Your task to perform on an android device: Turn off the flashlight Image 0: 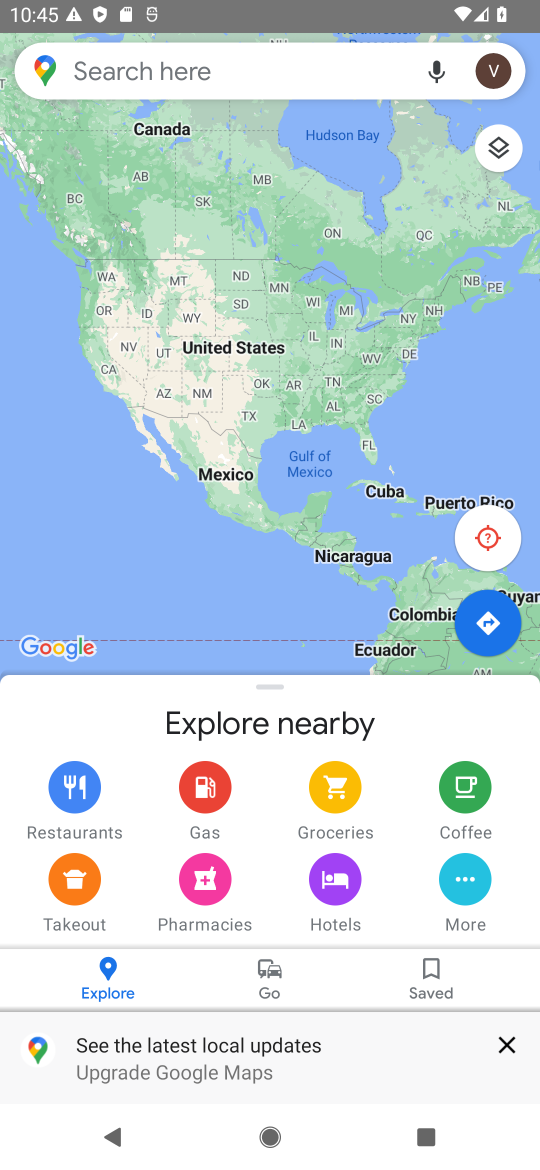
Step 0: press home button
Your task to perform on an android device: Turn off the flashlight Image 1: 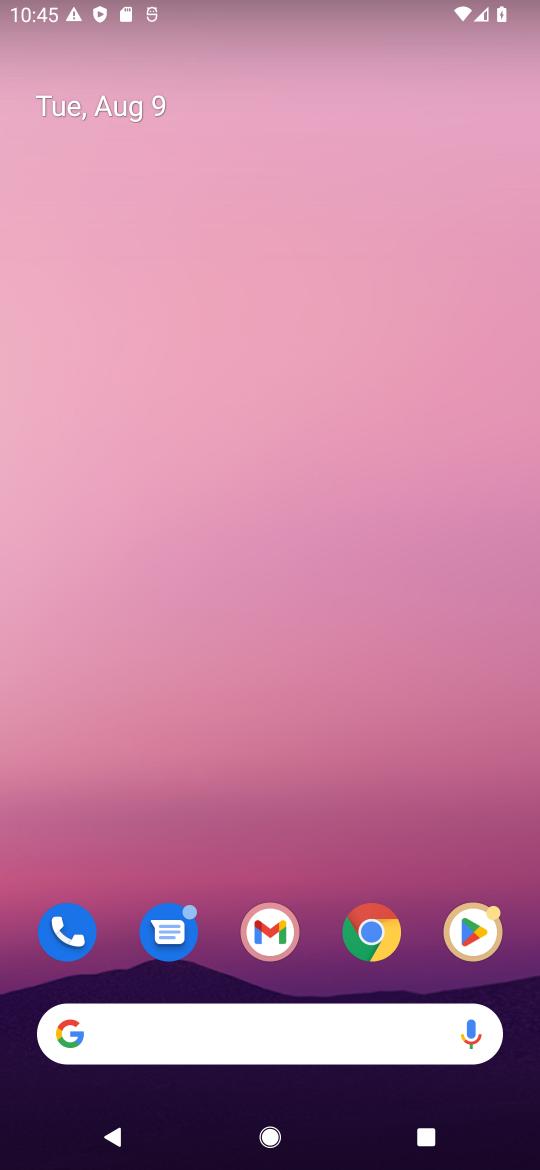
Step 1: drag from (282, 811) to (298, 191)
Your task to perform on an android device: Turn off the flashlight Image 2: 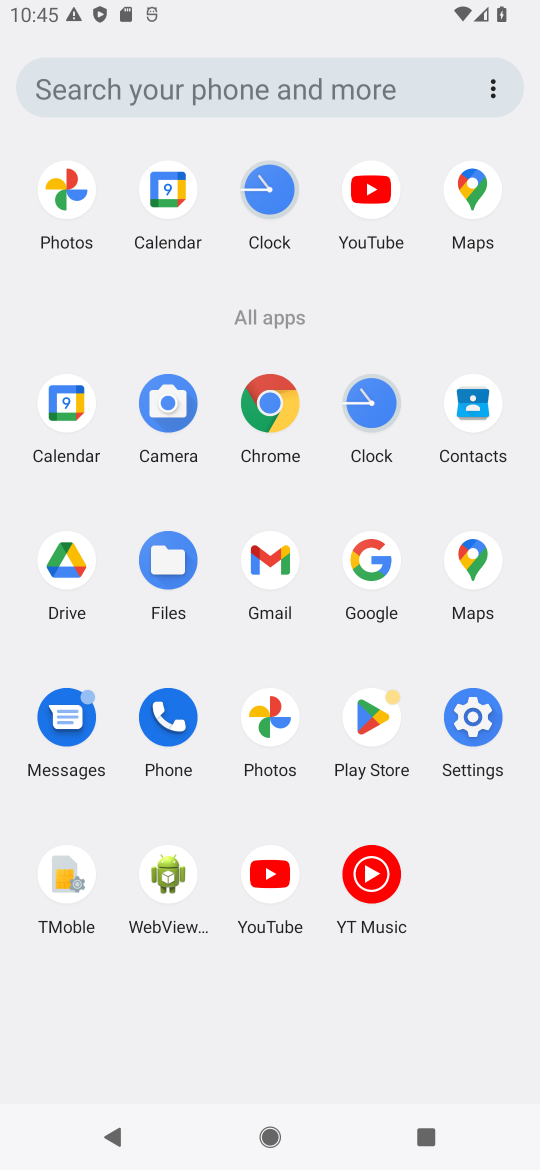
Step 2: click (465, 722)
Your task to perform on an android device: Turn off the flashlight Image 3: 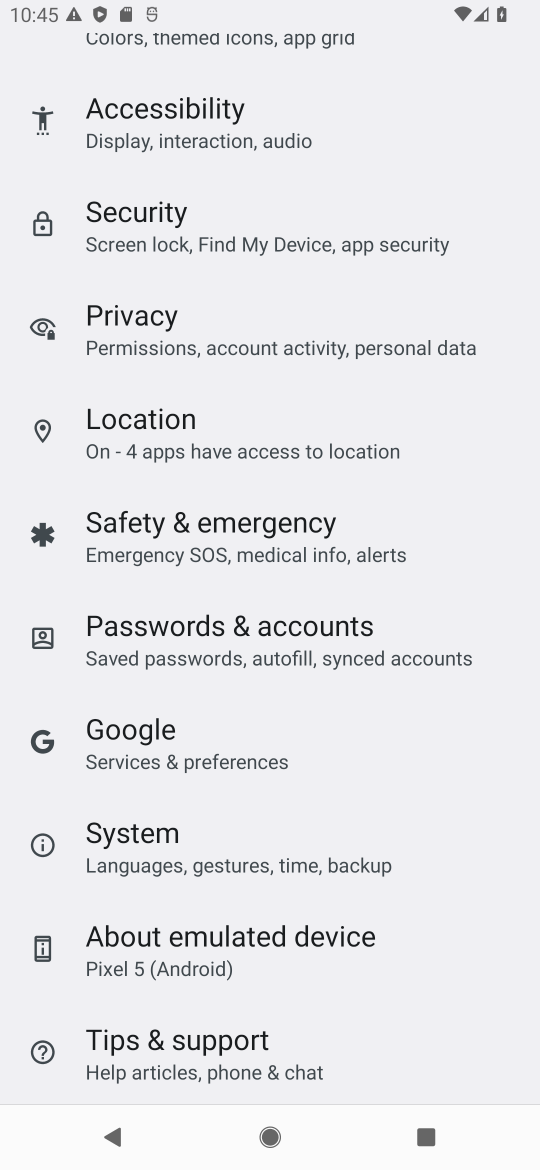
Step 3: drag from (324, 252) to (271, 871)
Your task to perform on an android device: Turn off the flashlight Image 4: 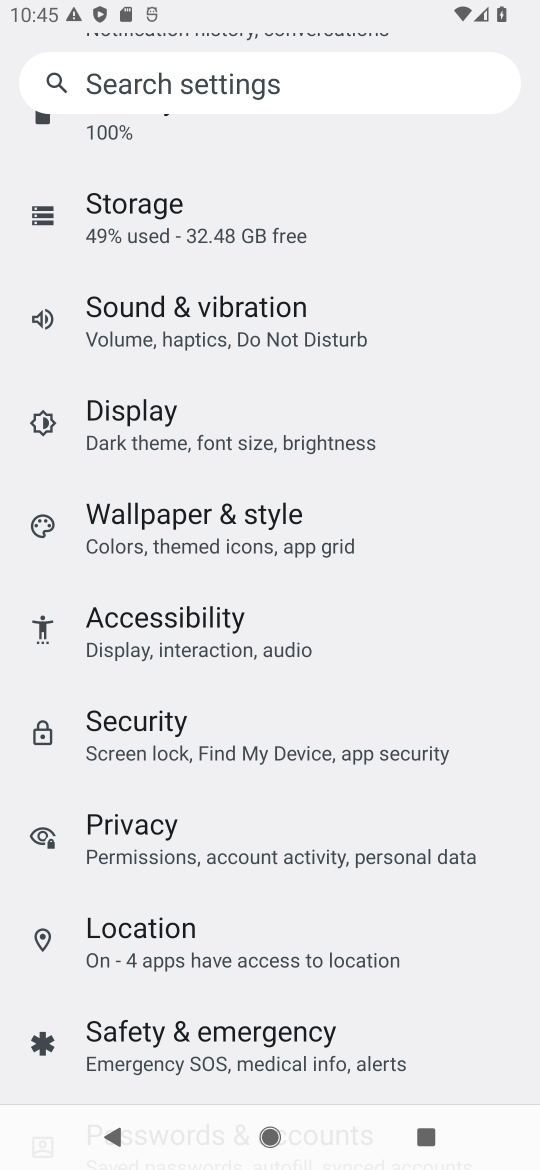
Step 4: click (256, 83)
Your task to perform on an android device: Turn off the flashlight Image 5: 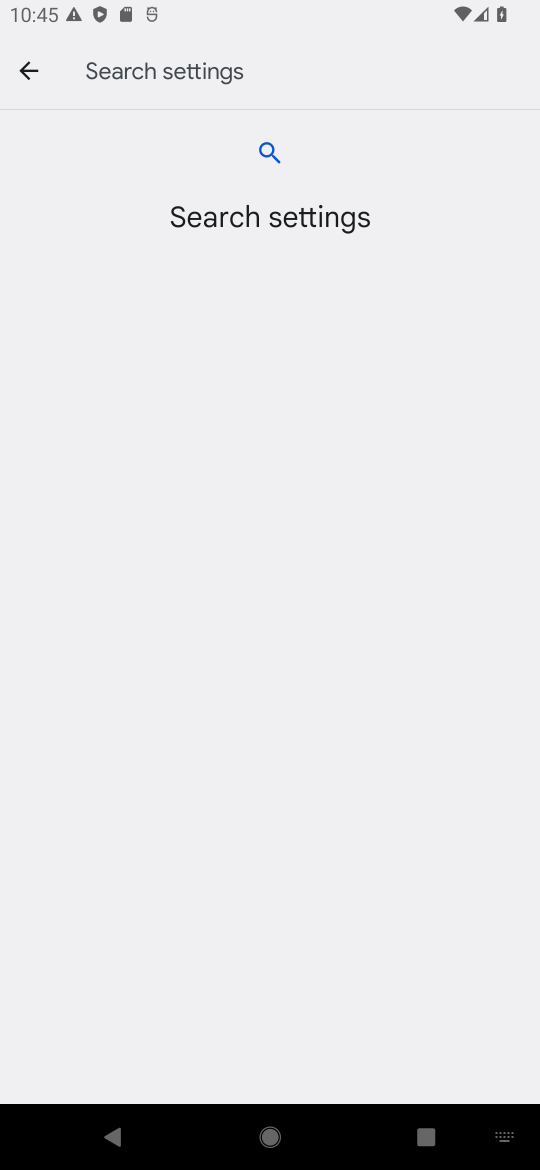
Step 5: type "flashlight"
Your task to perform on an android device: Turn off the flashlight Image 6: 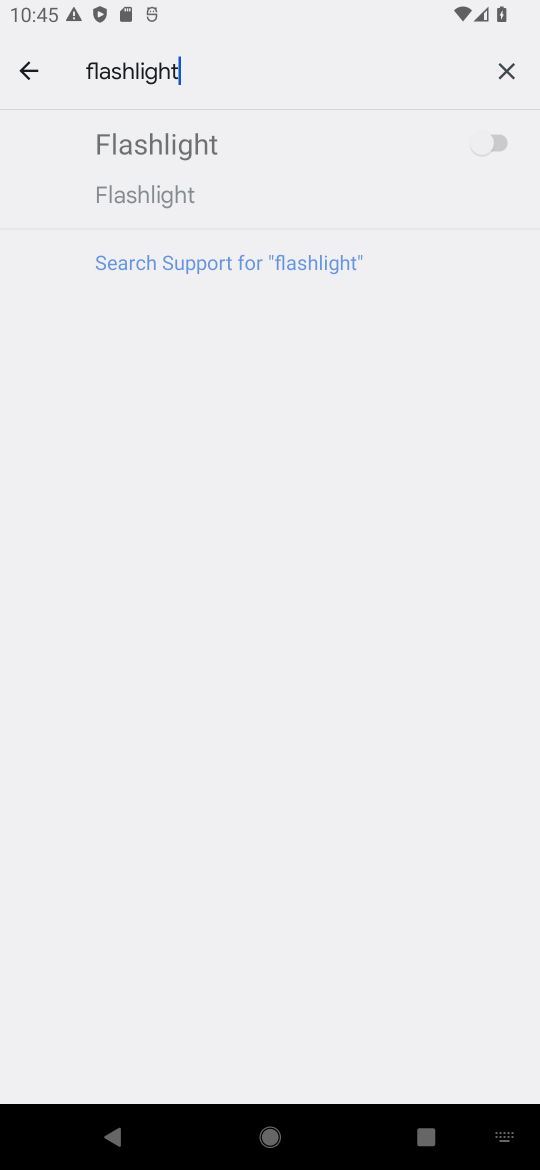
Step 6: click (313, 63)
Your task to perform on an android device: Turn off the flashlight Image 7: 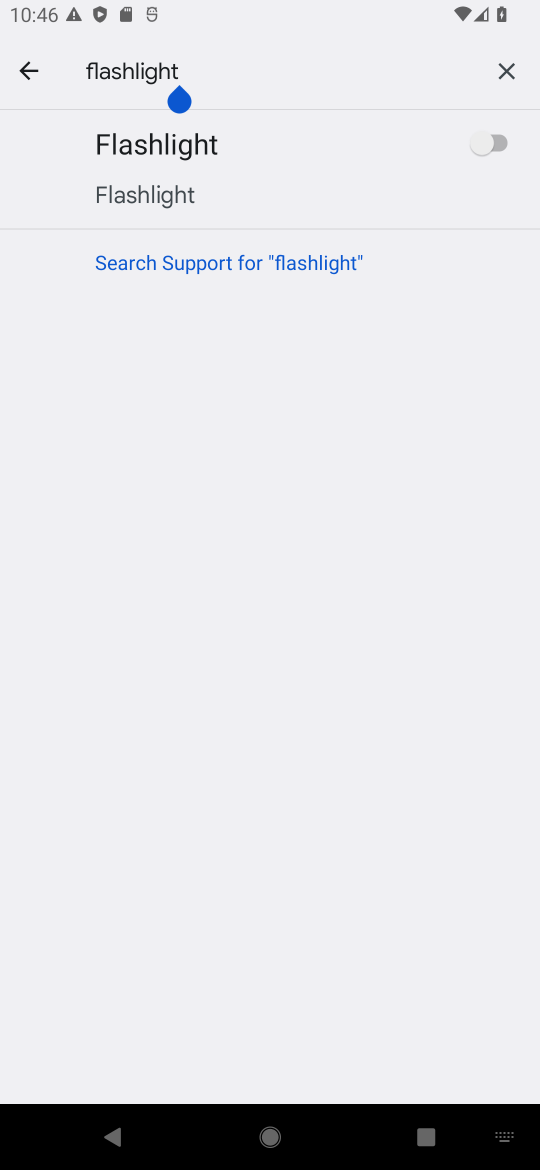
Step 7: task complete